Your task to perform on an android device: Open Reddit.com Image 0: 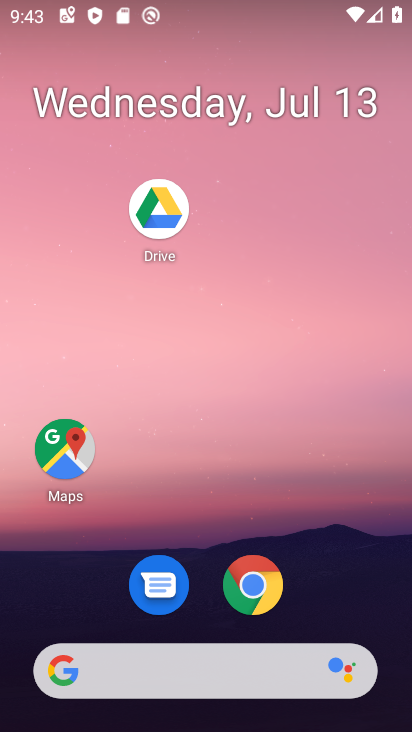
Step 0: click (261, 584)
Your task to perform on an android device: Open Reddit.com Image 1: 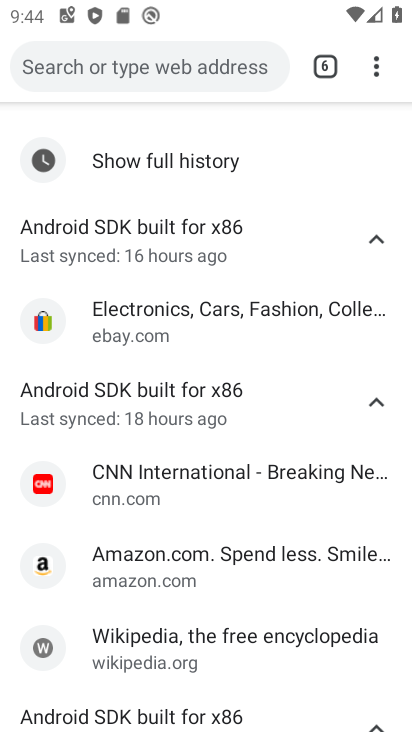
Step 1: drag from (375, 74) to (175, 135)
Your task to perform on an android device: Open Reddit.com Image 2: 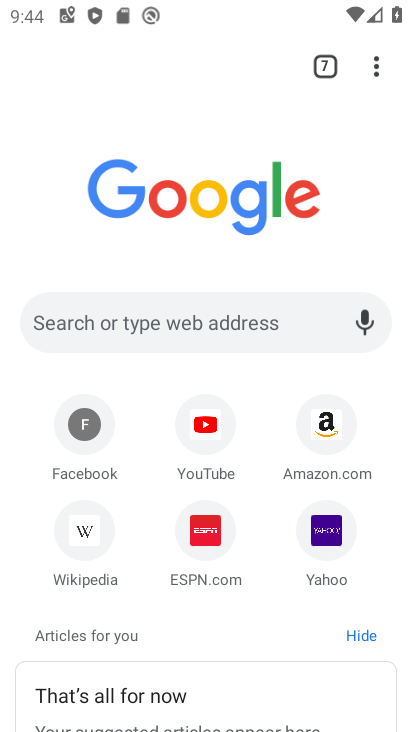
Step 2: click (244, 319)
Your task to perform on an android device: Open Reddit.com Image 3: 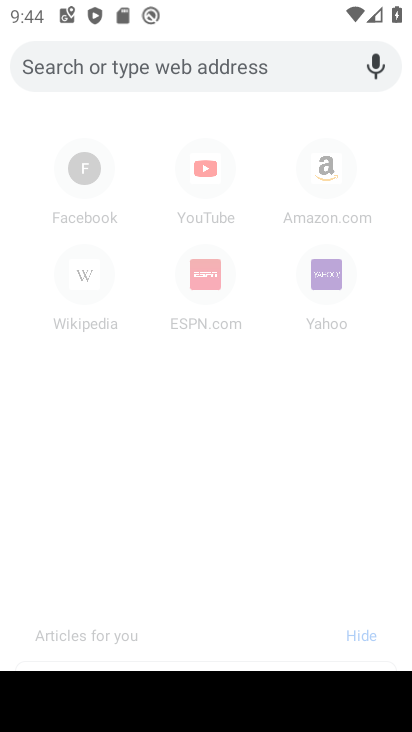
Step 3: type "reddit.com"
Your task to perform on an android device: Open Reddit.com Image 4: 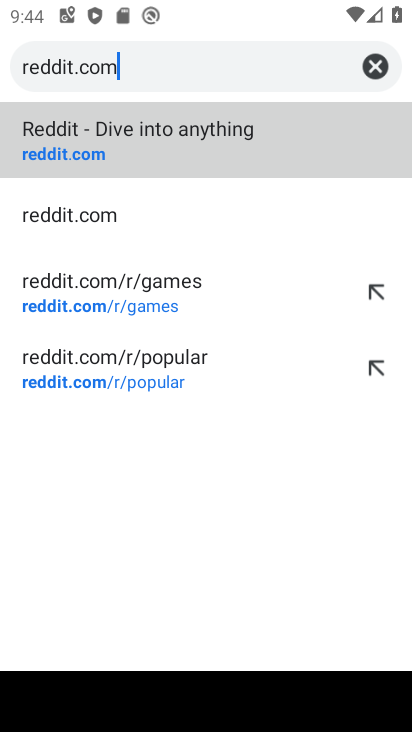
Step 4: click (161, 143)
Your task to perform on an android device: Open Reddit.com Image 5: 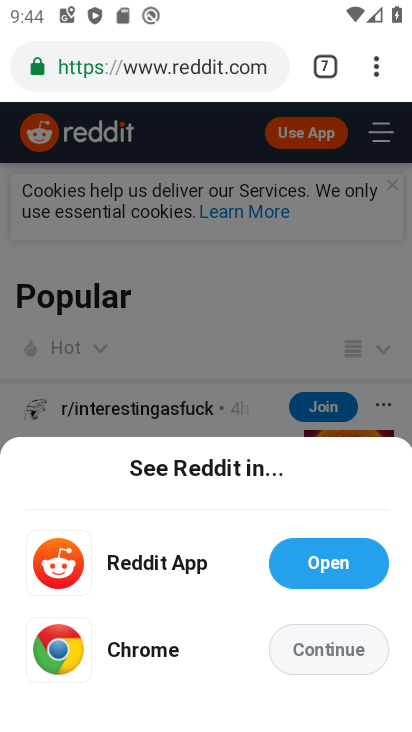
Step 5: task complete